Your task to perform on an android device: check data usage Image 0: 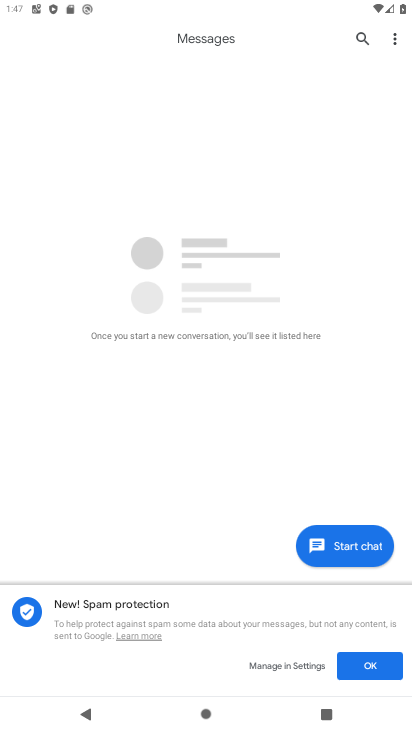
Step 0: press home button
Your task to perform on an android device: check data usage Image 1: 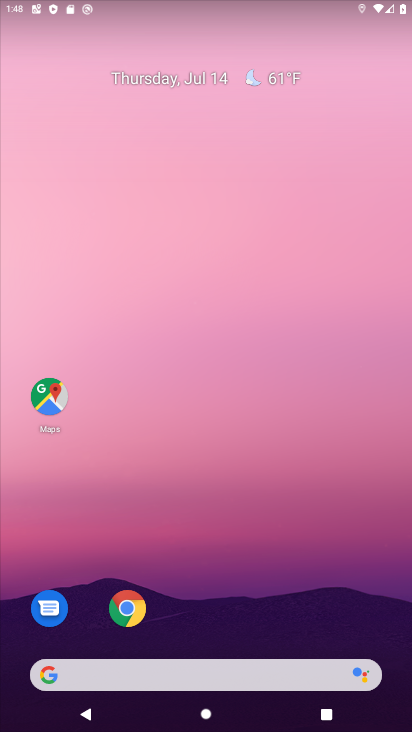
Step 1: drag from (165, 672) to (326, 225)
Your task to perform on an android device: check data usage Image 2: 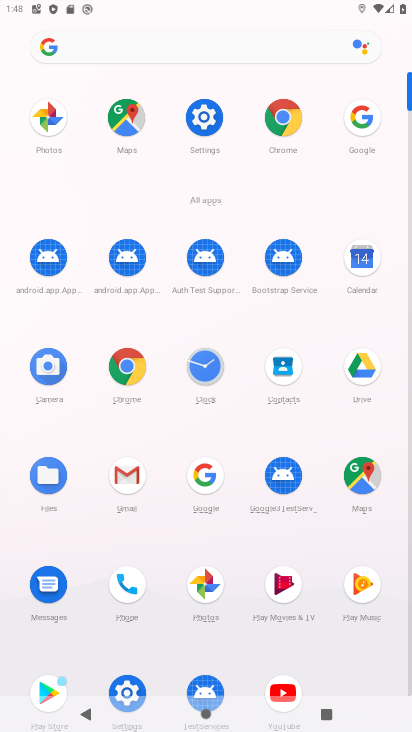
Step 2: click (205, 117)
Your task to perform on an android device: check data usage Image 3: 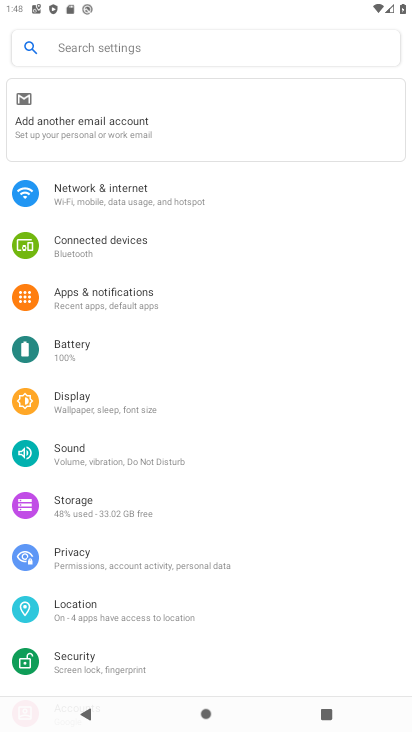
Step 3: click (104, 188)
Your task to perform on an android device: check data usage Image 4: 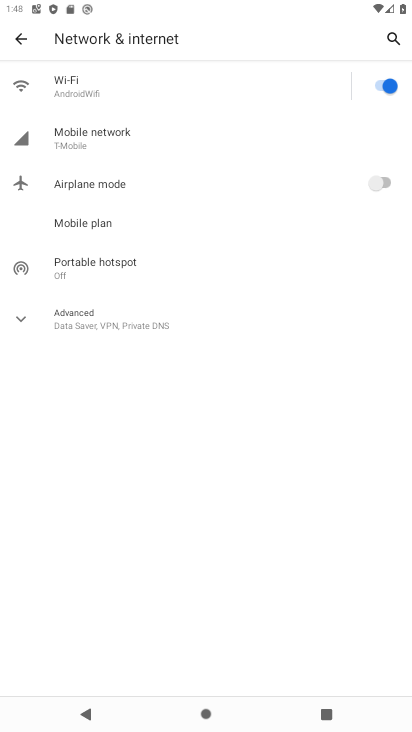
Step 4: click (108, 130)
Your task to perform on an android device: check data usage Image 5: 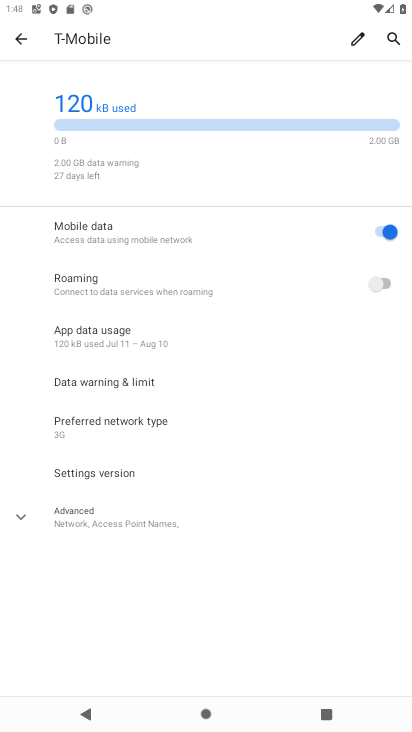
Step 5: task complete